Your task to perform on an android device: toggle sleep mode Image 0: 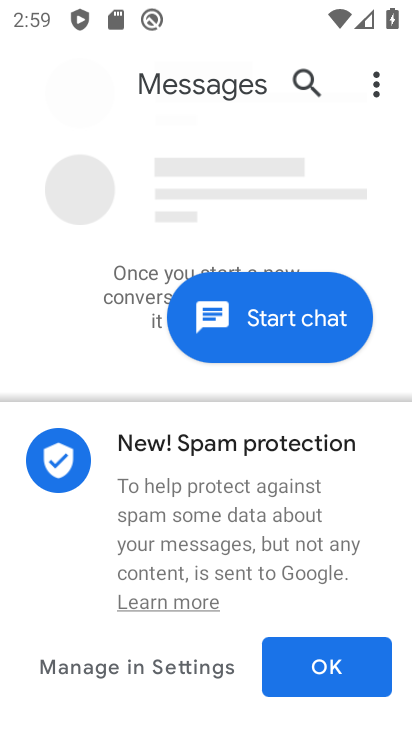
Step 0: press home button
Your task to perform on an android device: toggle sleep mode Image 1: 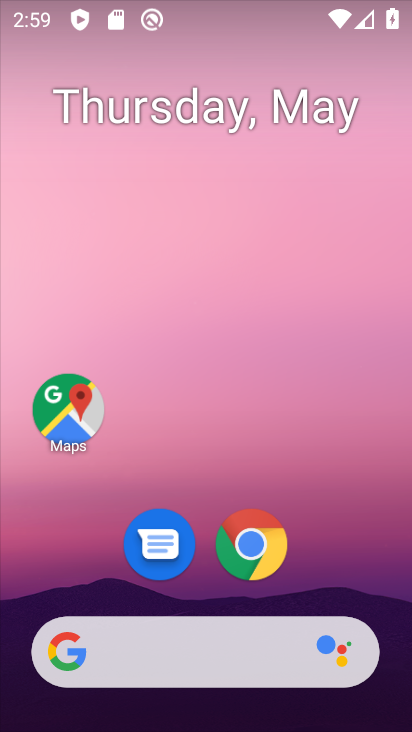
Step 1: drag from (194, 520) to (218, 16)
Your task to perform on an android device: toggle sleep mode Image 2: 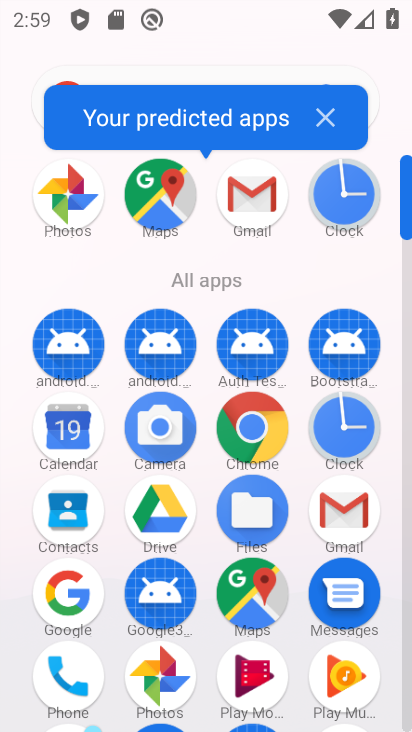
Step 2: drag from (224, 433) to (216, 201)
Your task to perform on an android device: toggle sleep mode Image 3: 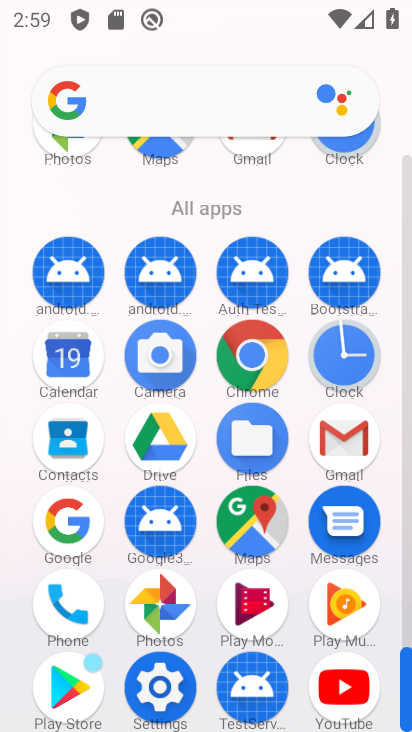
Step 3: click (148, 682)
Your task to perform on an android device: toggle sleep mode Image 4: 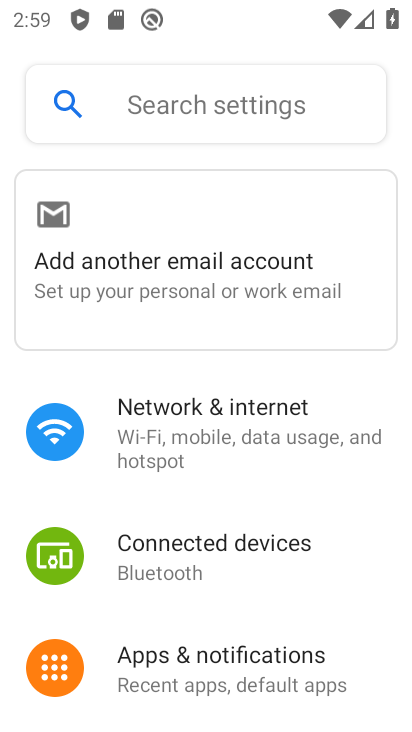
Step 4: click (164, 117)
Your task to perform on an android device: toggle sleep mode Image 5: 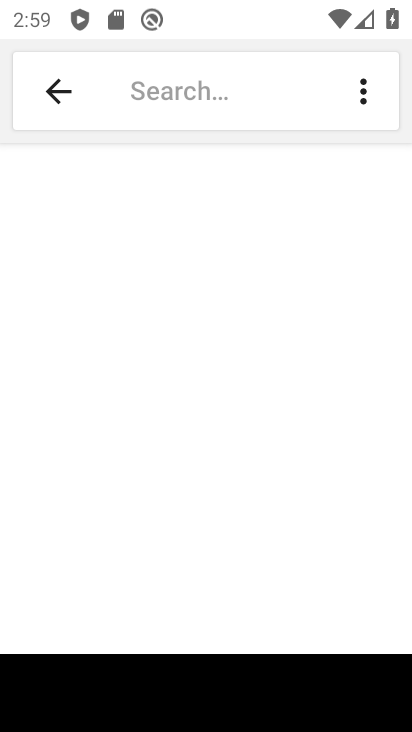
Step 5: type "sleep mode"
Your task to perform on an android device: toggle sleep mode Image 6: 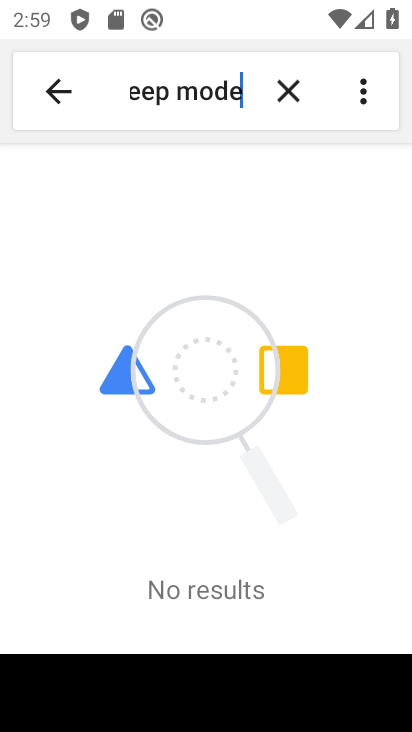
Step 6: task complete